Your task to perform on an android device: Go to wifi settings Image 0: 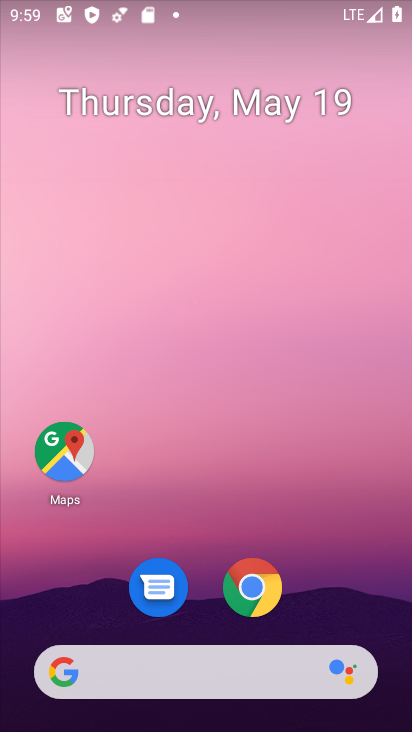
Step 0: drag from (228, 7) to (190, 666)
Your task to perform on an android device: Go to wifi settings Image 1: 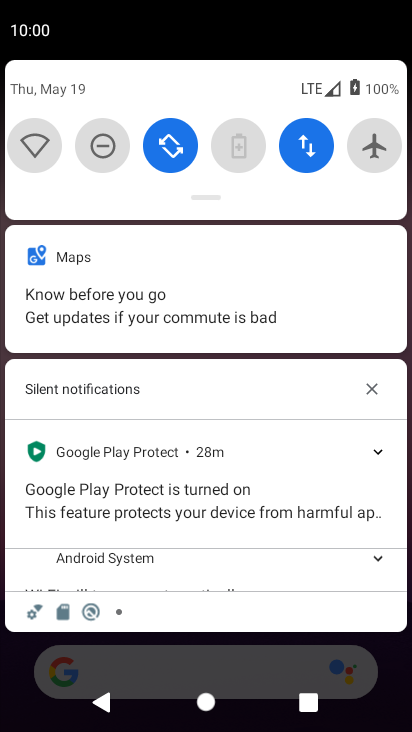
Step 1: click (34, 152)
Your task to perform on an android device: Go to wifi settings Image 2: 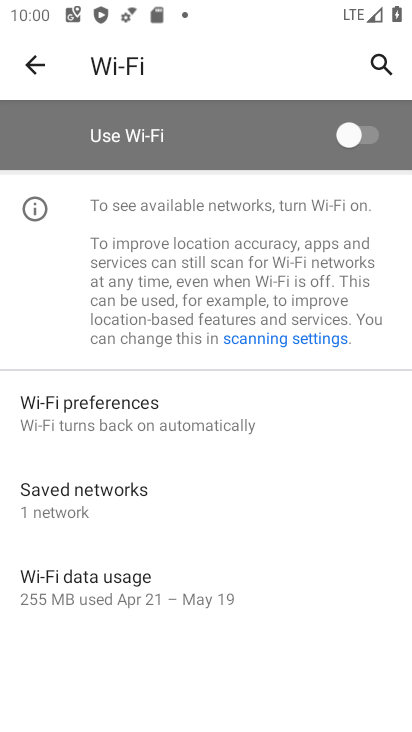
Step 2: task complete